Your task to perform on an android device: Open accessibility settings Image 0: 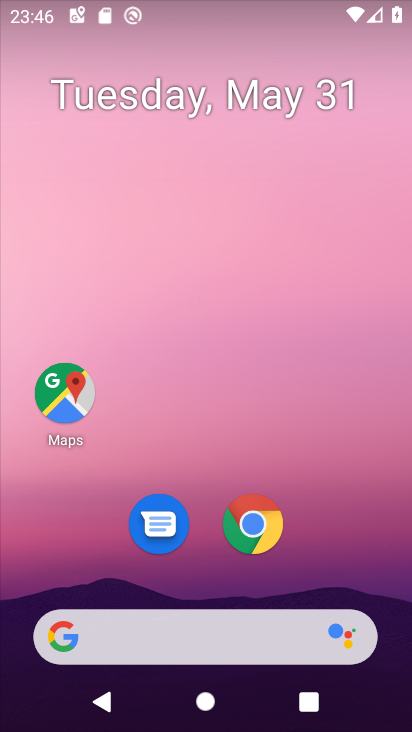
Step 0: drag from (343, 566) to (272, 20)
Your task to perform on an android device: Open accessibility settings Image 1: 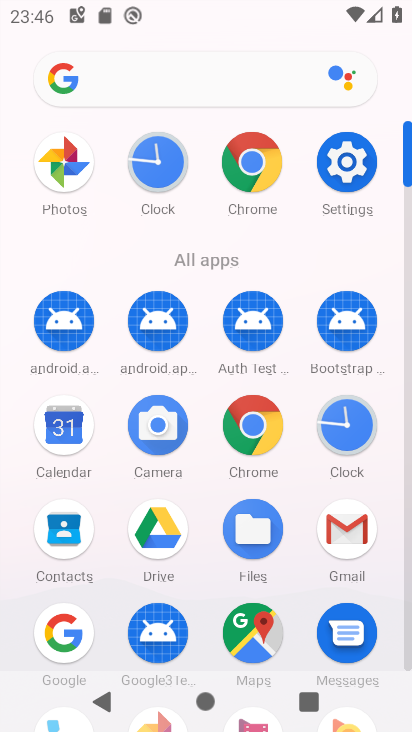
Step 1: click (338, 175)
Your task to perform on an android device: Open accessibility settings Image 2: 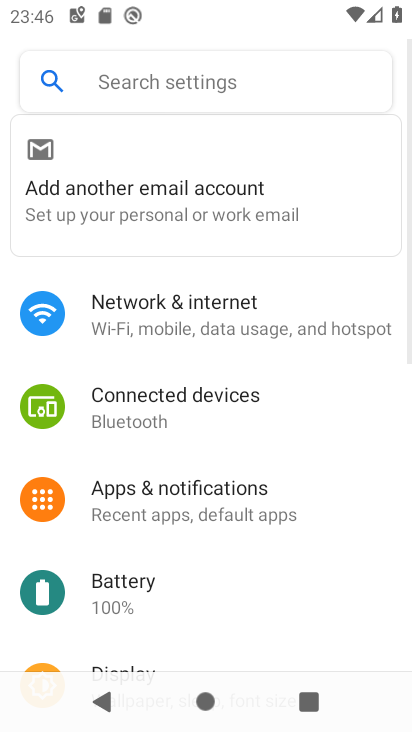
Step 2: drag from (217, 471) to (210, 6)
Your task to perform on an android device: Open accessibility settings Image 3: 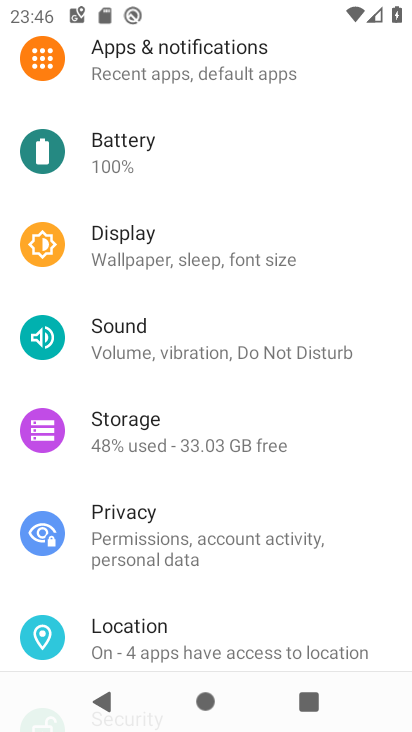
Step 3: drag from (184, 589) to (214, 40)
Your task to perform on an android device: Open accessibility settings Image 4: 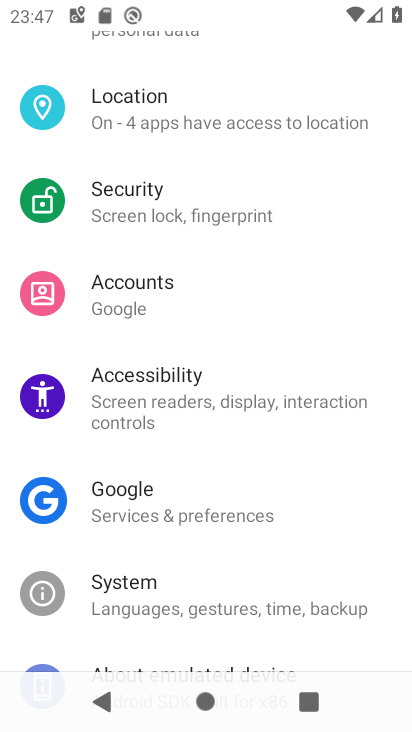
Step 4: click (225, 384)
Your task to perform on an android device: Open accessibility settings Image 5: 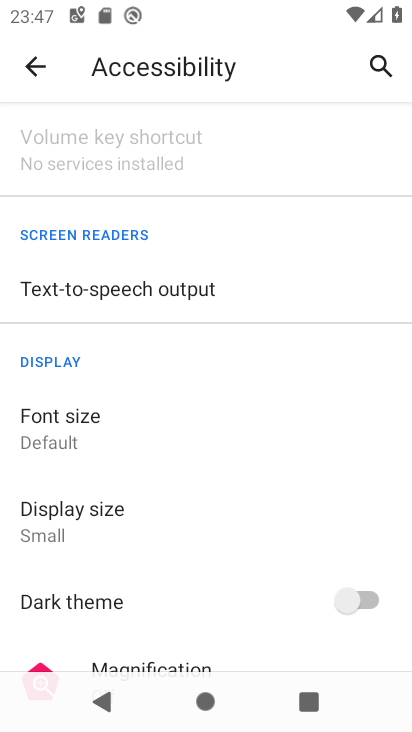
Step 5: task complete